Your task to perform on an android device: Search for vegetarian restaurants on Maps Image 0: 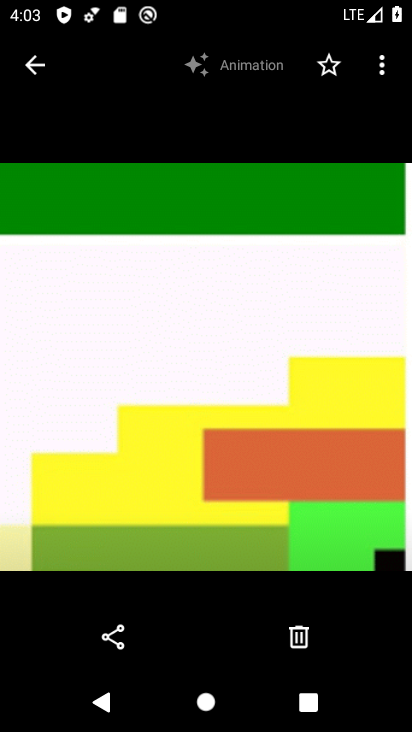
Step 0: press home button
Your task to perform on an android device: Search for vegetarian restaurants on Maps Image 1: 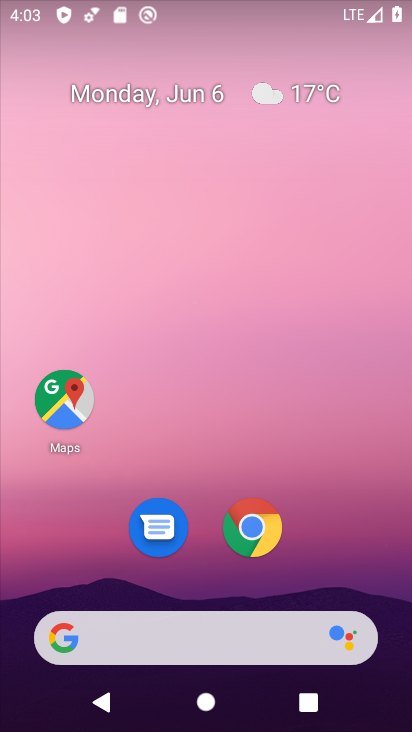
Step 1: click (47, 399)
Your task to perform on an android device: Search for vegetarian restaurants on Maps Image 2: 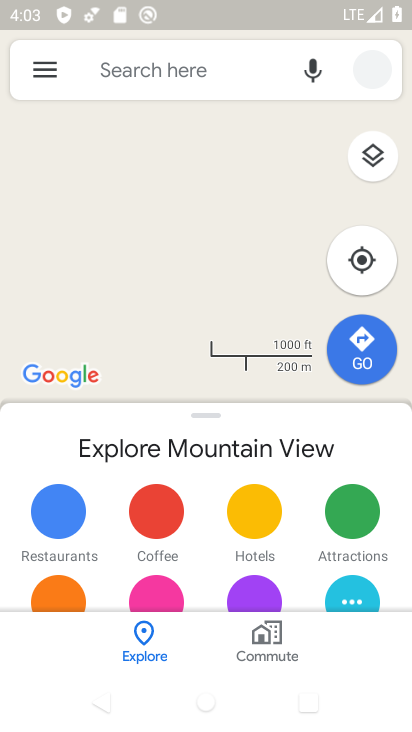
Step 2: click (188, 71)
Your task to perform on an android device: Search for vegetarian restaurants on Maps Image 3: 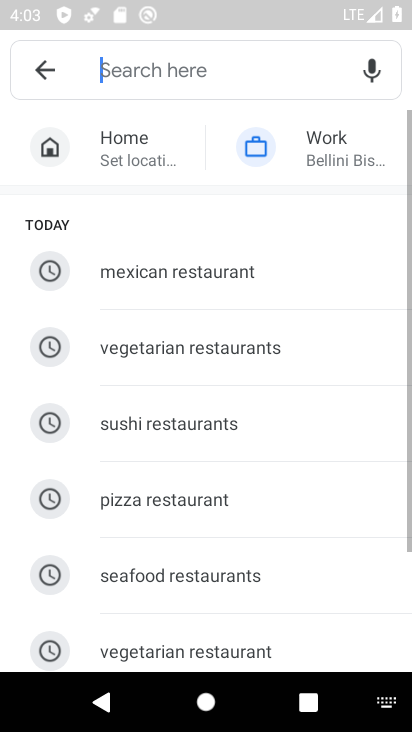
Step 3: click (236, 346)
Your task to perform on an android device: Search for vegetarian restaurants on Maps Image 4: 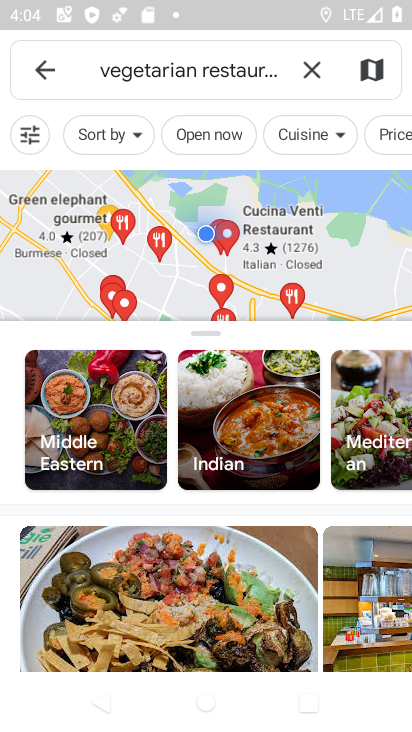
Step 4: task complete